Your task to perform on an android device: Open Google Maps and go to "Timeline" Image 0: 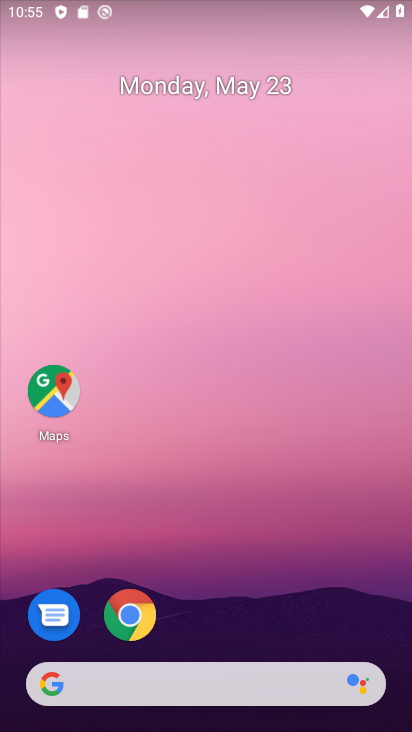
Step 0: click (64, 398)
Your task to perform on an android device: Open Google Maps and go to "Timeline" Image 1: 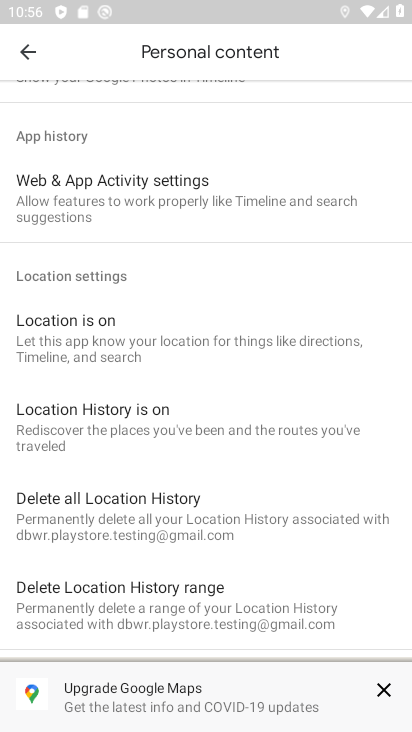
Step 1: click (30, 53)
Your task to perform on an android device: Open Google Maps and go to "Timeline" Image 2: 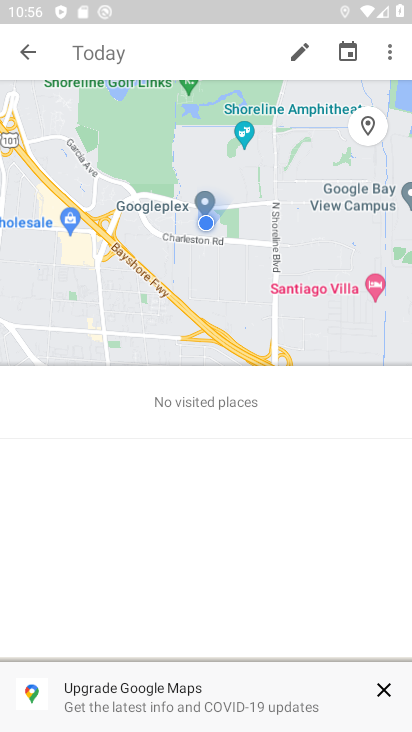
Step 2: click (30, 53)
Your task to perform on an android device: Open Google Maps and go to "Timeline" Image 3: 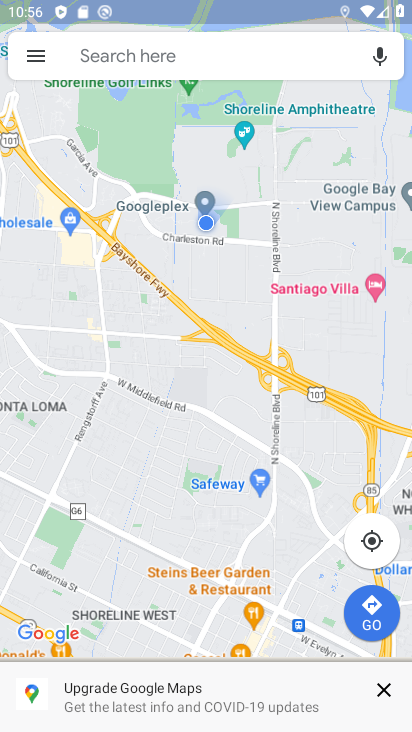
Step 3: click (30, 53)
Your task to perform on an android device: Open Google Maps and go to "Timeline" Image 4: 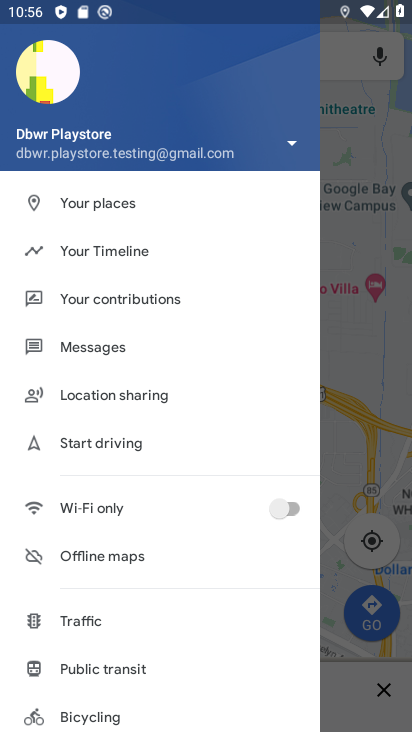
Step 4: click (79, 251)
Your task to perform on an android device: Open Google Maps and go to "Timeline" Image 5: 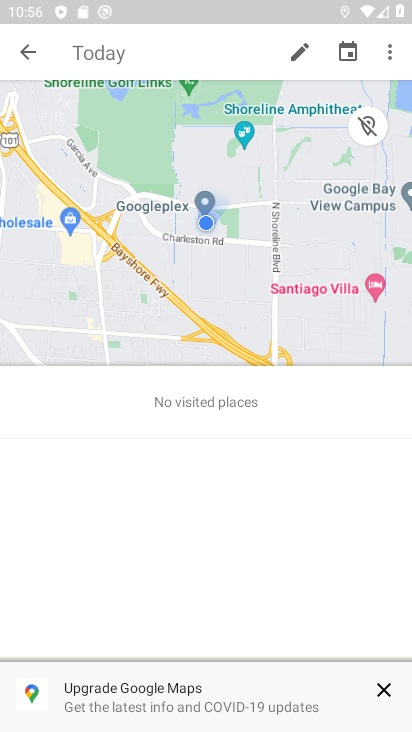
Step 5: task complete